Your task to perform on an android device: visit the assistant section in the google photos Image 0: 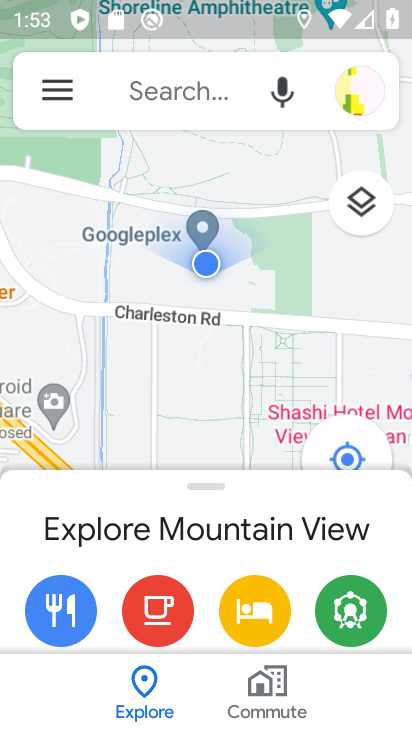
Step 0: press home button
Your task to perform on an android device: visit the assistant section in the google photos Image 1: 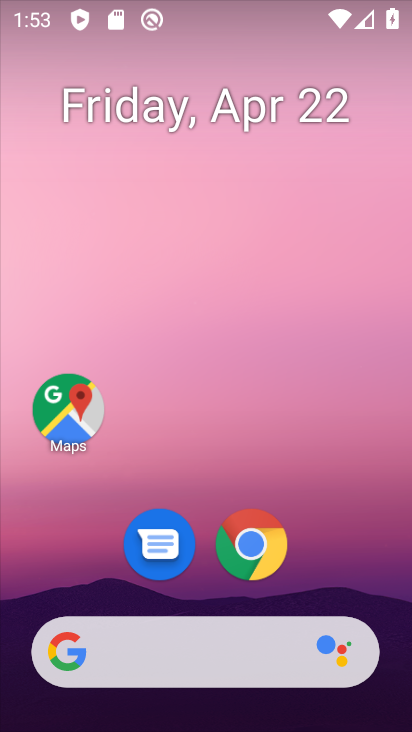
Step 1: drag from (202, 586) to (183, 125)
Your task to perform on an android device: visit the assistant section in the google photos Image 2: 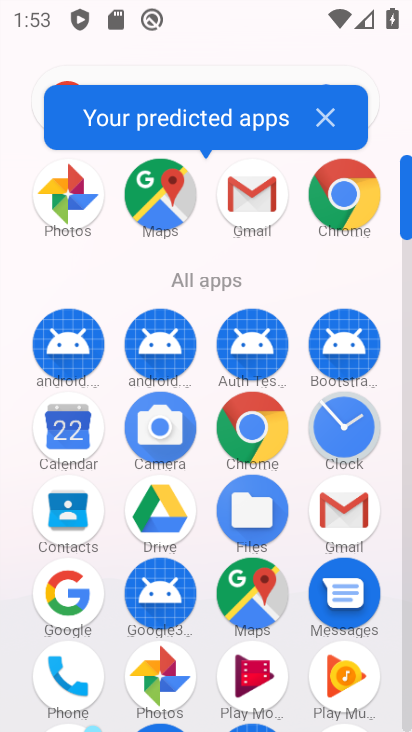
Step 2: click (86, 191)
Your task to perform on an android device: visit the assistant section in the google photos Image 3: 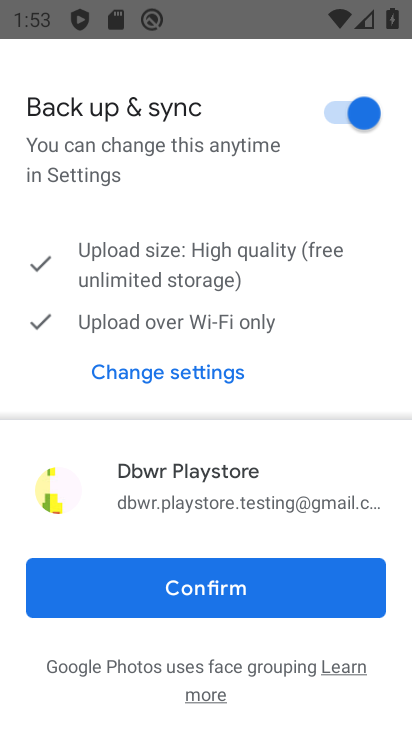
Step 3: click (255, 566)
Your task to perform on an android device: visit the assistant section in the google photos Image 4: 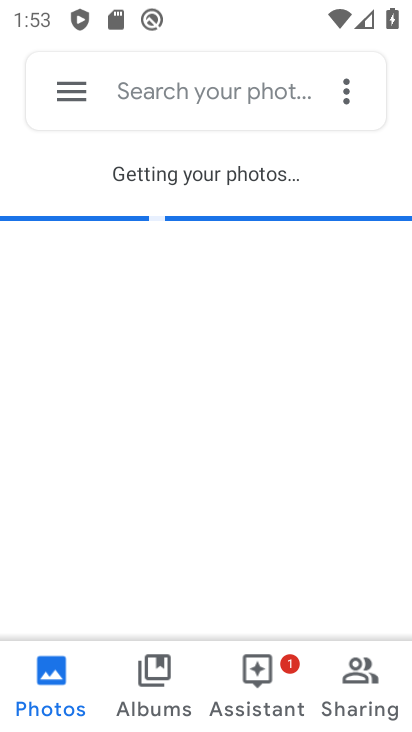
Step 4: click (281, 688)
Your task to perform on an android device: visit the assistant section in the google photos Image 5: 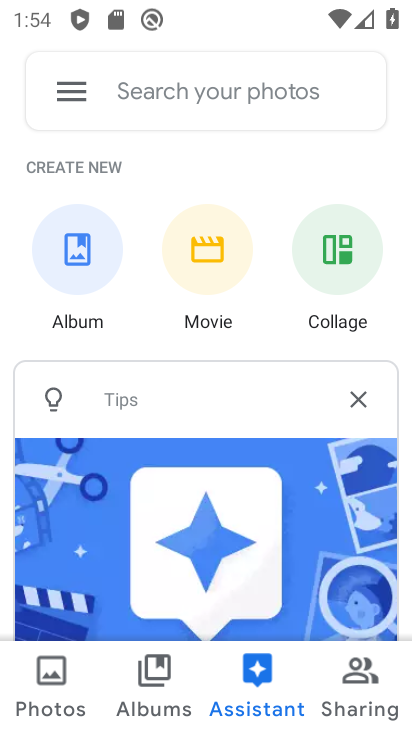
Step 5: task complete